Your task to perform on an android device: Check the news Image 0: 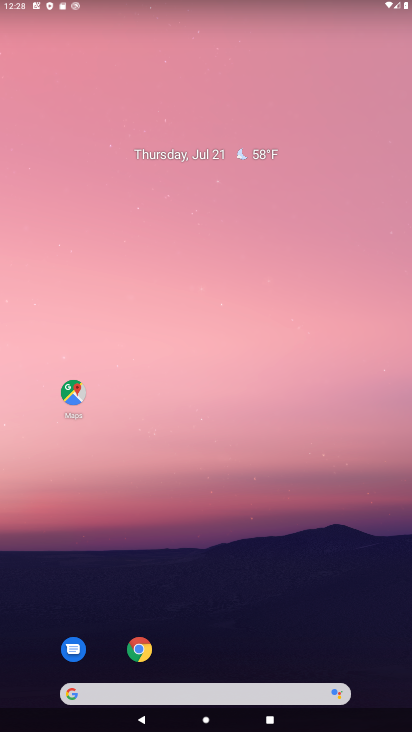
Step 0: drag from (0, 324) to (372, 331)
Your task to perform on an android device: Check the news Image 1: 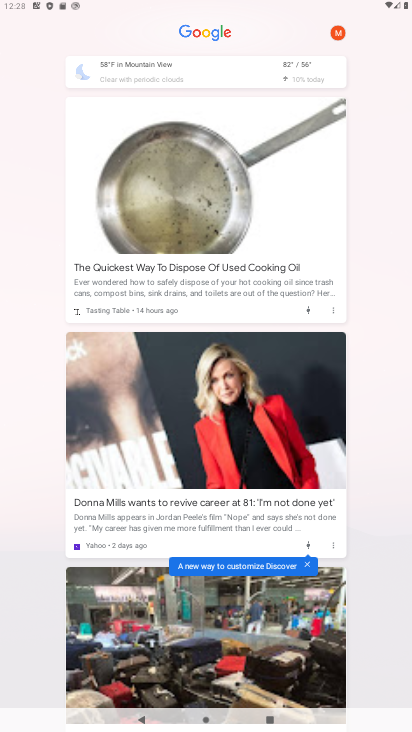
Step 1: task complete